Your task to perform on an android device: Find coffee shops on Maps Image 0: 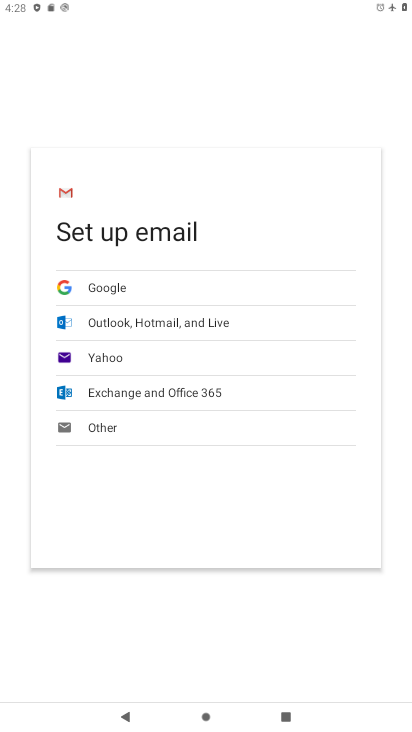
Step 0: press home button
Your task to perform on an android device: Find coffee shops on Maps Image 1: 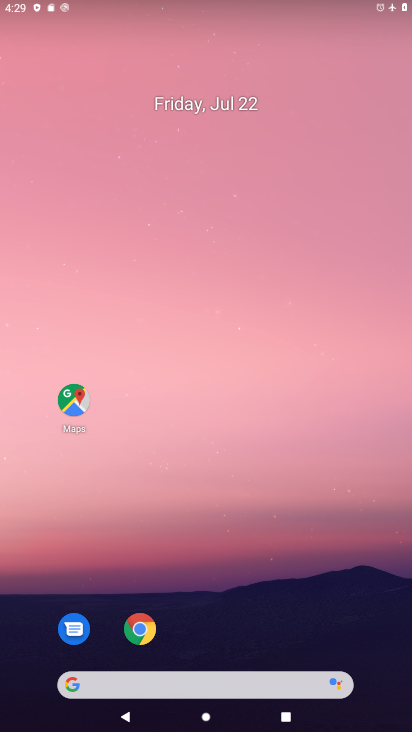
Step 1: drag from (281, 615) to (246, 9)
Your task to perform on an android device: Find coffee shops on Maps Image 2: 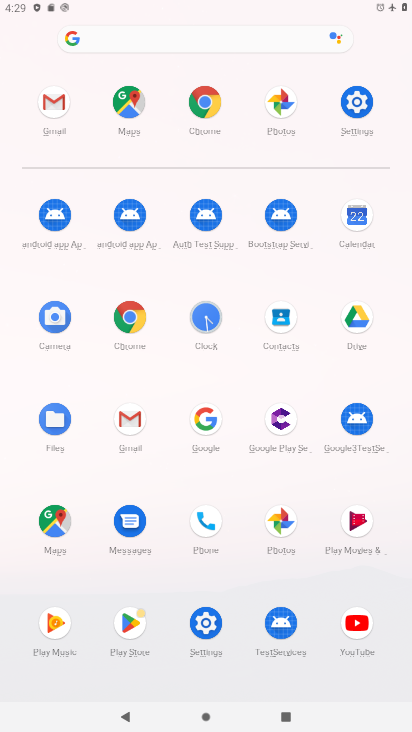
Step 2: click (128, 97)
Your task to perform on an android device: Find coffee shops on Maps Image 3: 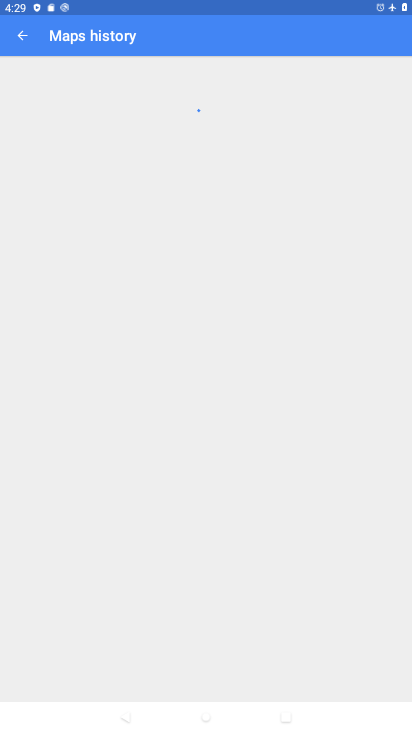
Step 3: click (26, 34)
Your task to perform on an android device: Find coffee shops on Maps Image 4: 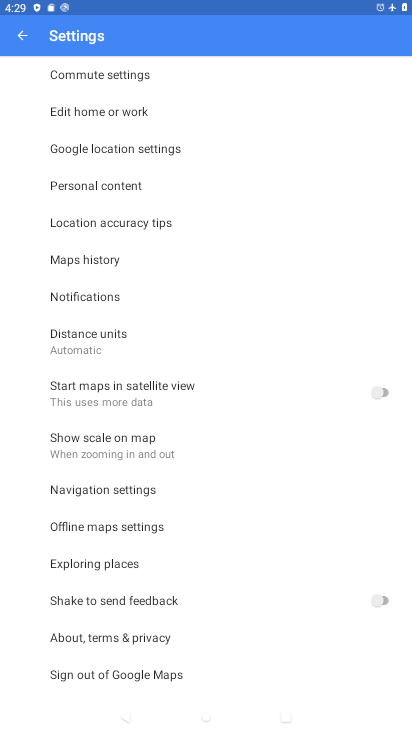
Step 4: click (30, 36)
Your task to perform on an android device: Find coffee shops on Maps Image 5: 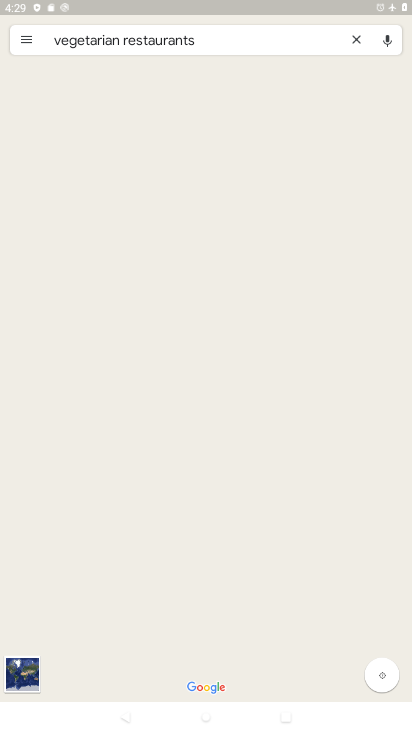
Step 5: click (229, 38)
Your task to perform on an android device: Find coffee shops on Maps Image 6: 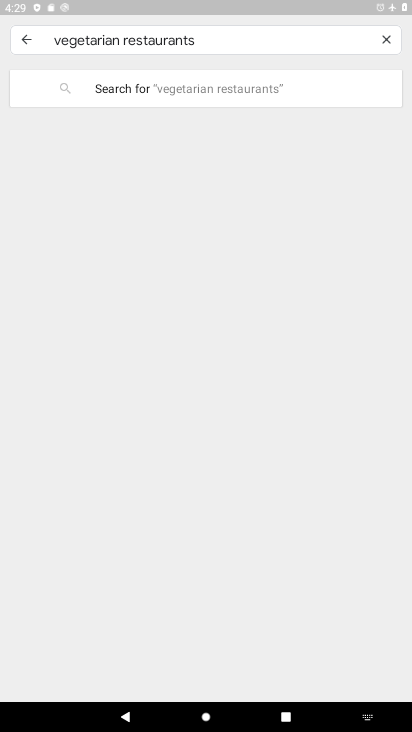
Step 6: click (367, 45)
Your task to perform on an android device: Find coffee shops on Maps Image 7: 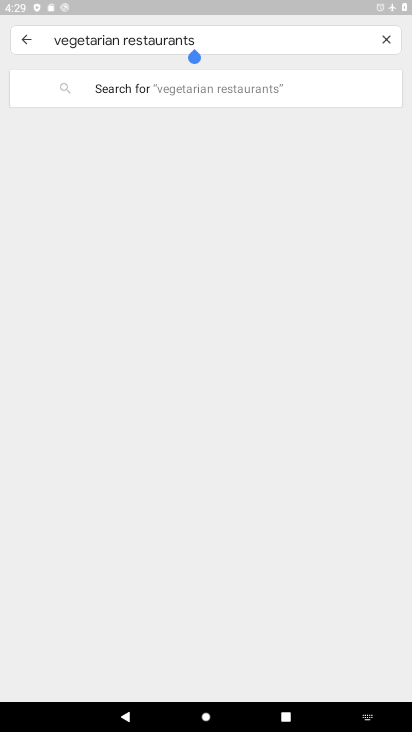
Step 7: click (382, 38)
Your task to perform on an android device: Find coffee shops on Maps Image 8: 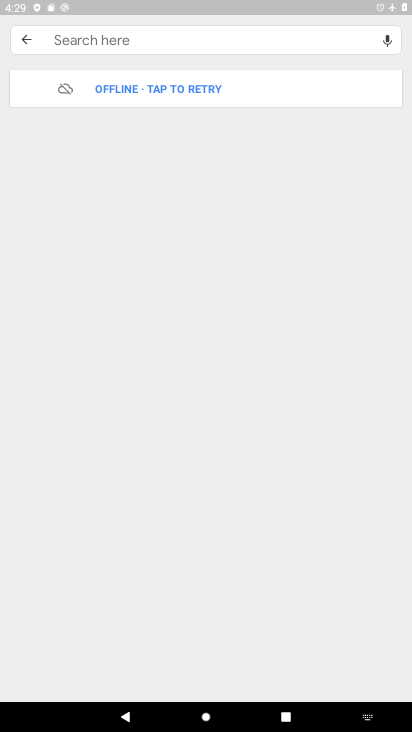
Step 8: type "coffee shops"
Your task to perform on an android device: Find coffee shops on Maps Image 9: 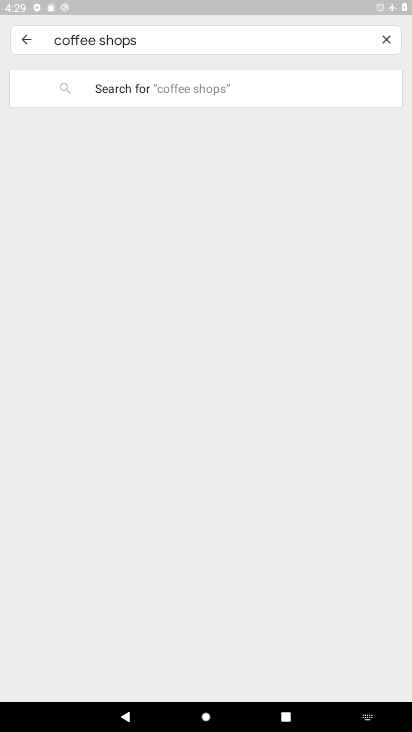
Step 9: click (205, 88)
Your task to perform on an android device: Find coffee shops on Maps Image 10: 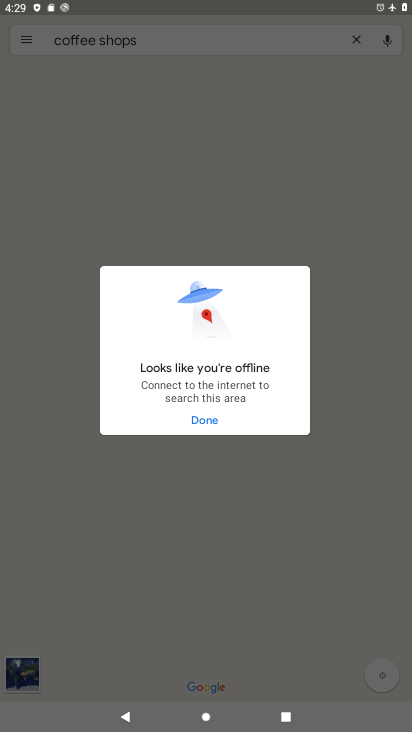
Step 10: task complete